Your task to perform on an android device: Open display settings Image 0: 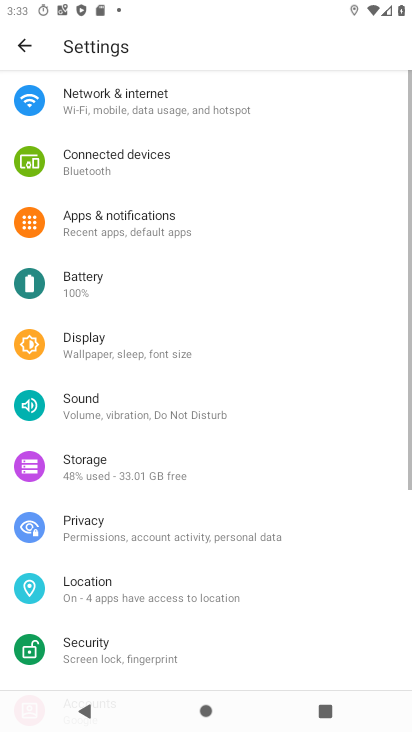
Step 0: press home button
Your task to perform on an android device: Open display settings Image 1: 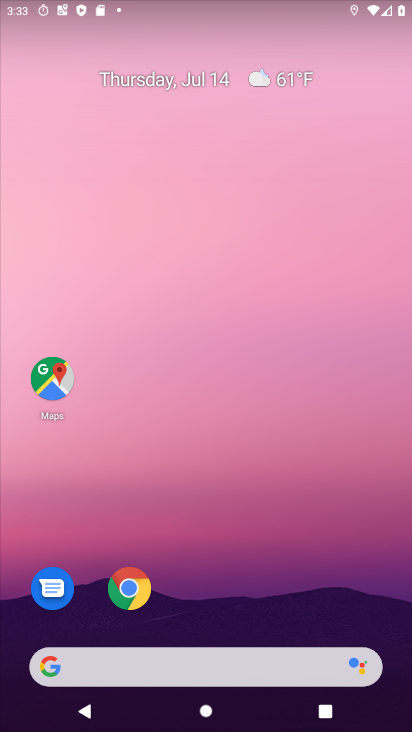
Step 1: drag from (198, 665) to (256, 189)
Your task to perform on an android device: Open display settings Image 2: 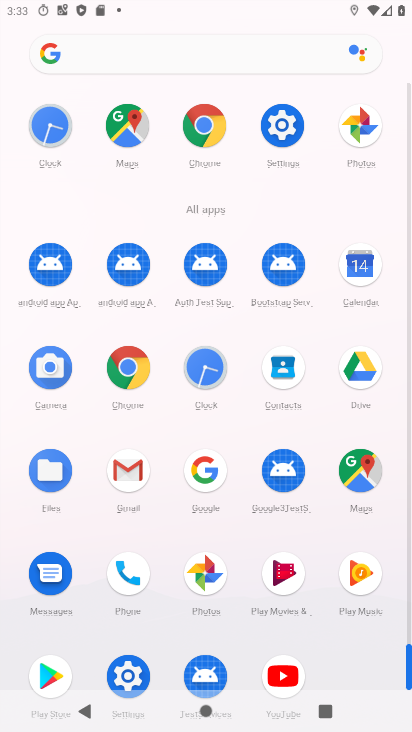
Step 2: click (282, 125)
Your task to perform on an android device: Open display settings Image 3: 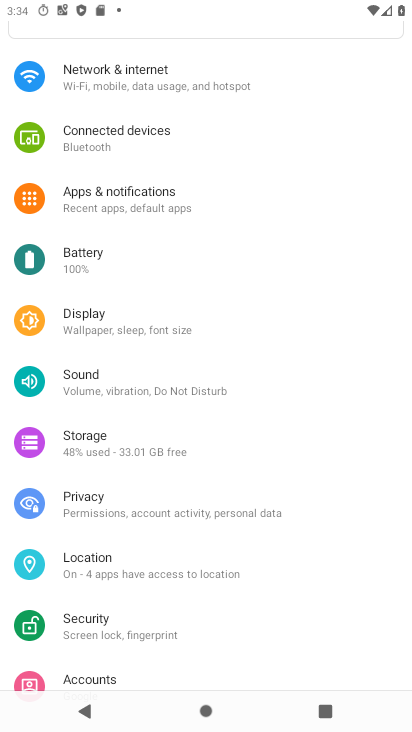
Step 3: click (89, 317)
Your task to perform on an android device: Open display settings Image 4: 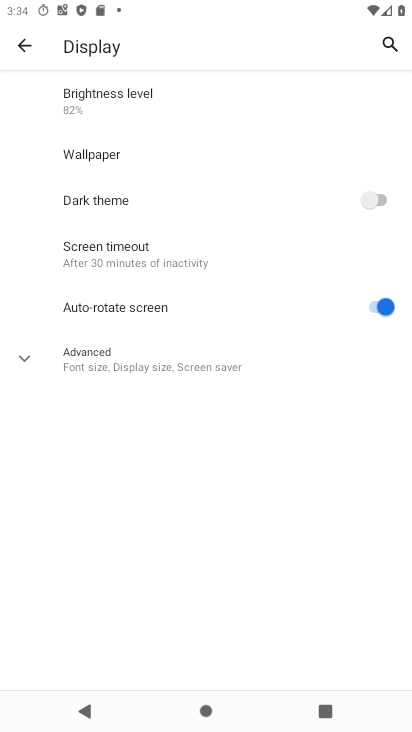
Step 4: task complete